Your task to perform on an android device: turn off airplane mode Image 0: 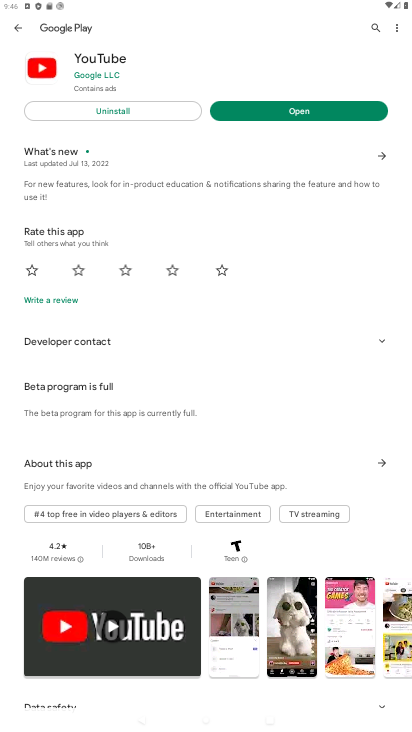
Step 0: press home button
Your task to perform on an android device: turn off airplane mode Image 1: 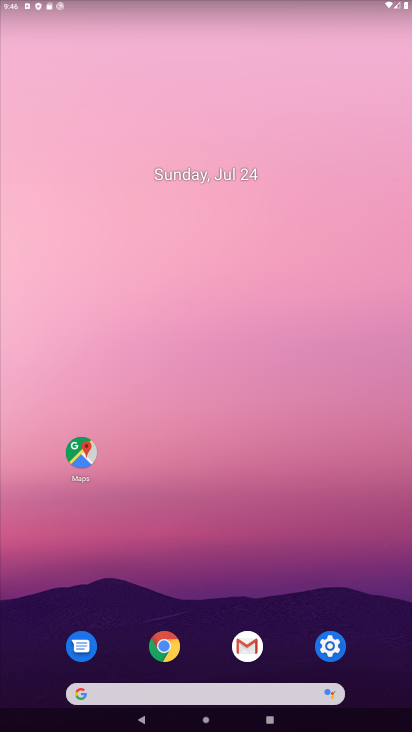
Step 1: click (331, 645)
Your task to perform on an android device: turn off airplane mode Image 2: 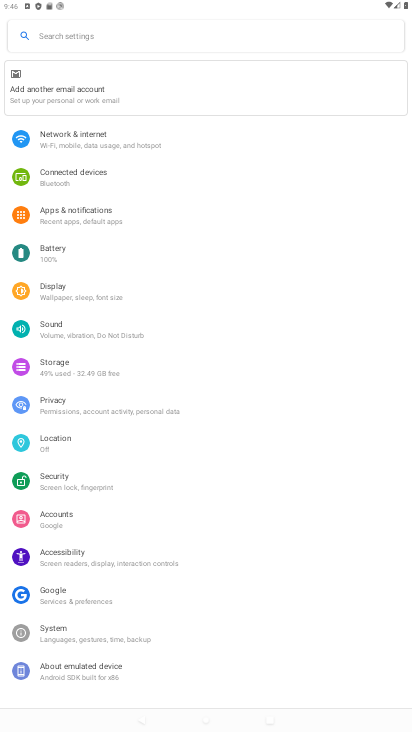
Step 2: click (97, 141)
Your task to perform on an android device: turn off airplane mode Image 3: 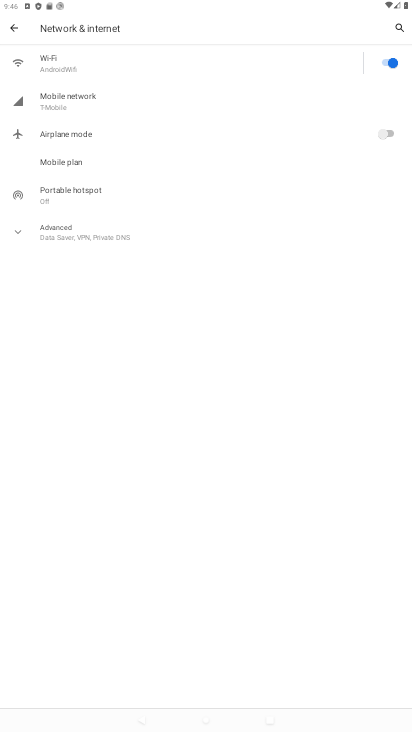
Step 3: click (337, 131)
Your task to perform on an android device: turn off airplane mode Image 4: 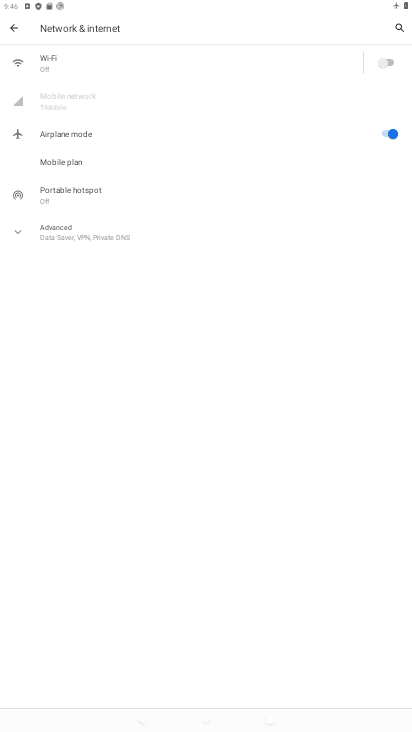
Step 4: click (337, 131)
Your task to perform on an android device: turn off airplane mode Image 5: 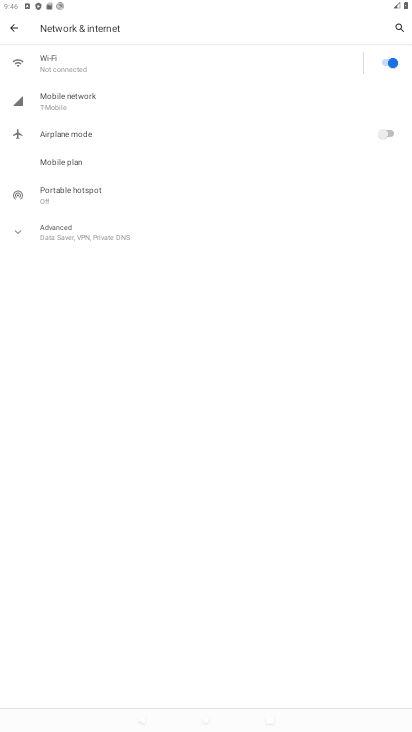
Step 5: task complete